Your task to perform on an android device: Open the phone app and click the voicemail tab. Image 0: 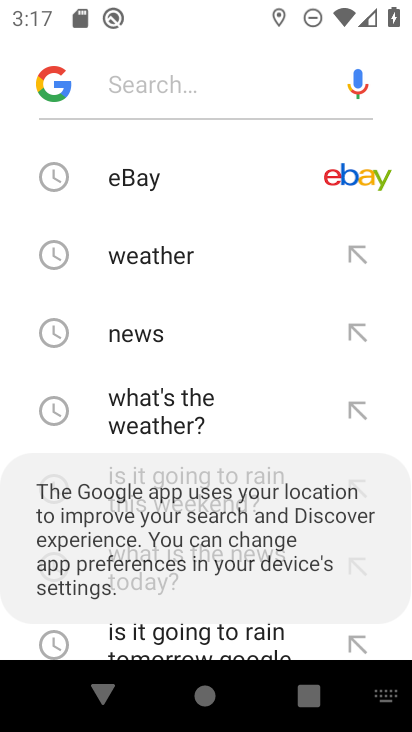
Step 0: press home button
Your task to perform on an android device: Open the phone app and click the voicemail tab. Image 1: 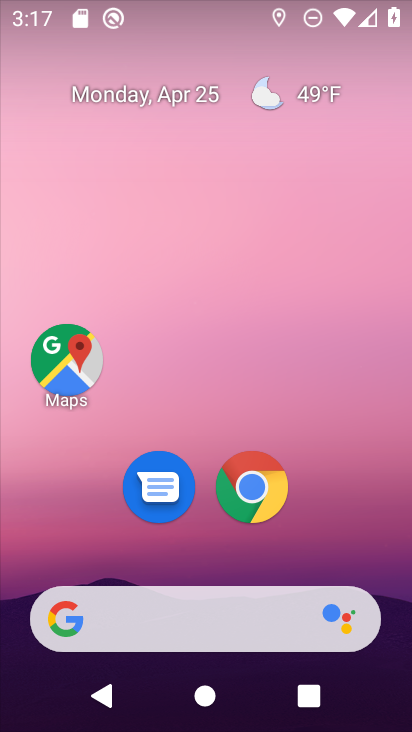
Step 1: drag from (363, 560) to (339, 0)
Your task to perform on an android device: Open the phone app and click the voicemail tab. Image 2: 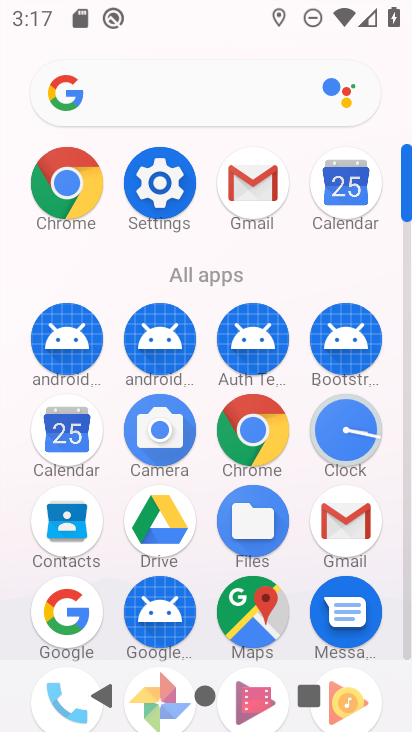
Step 2: drag from (397, 610) to (396, 526)
Your task to perform on an android device: Open the phone app and click the voicemail tab. Image 3: 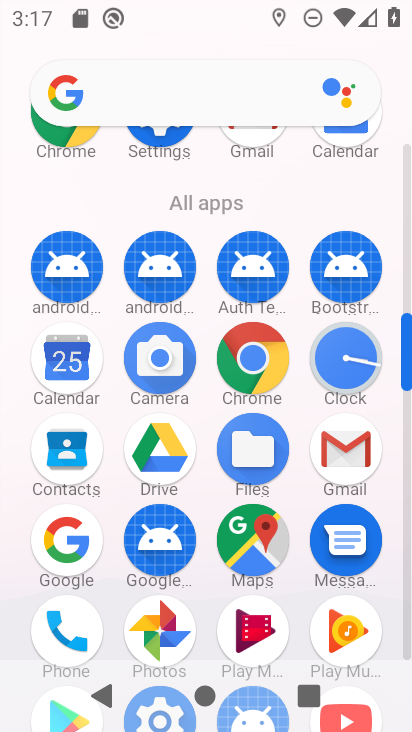
Step 3: click (56, 629)
Your task to perform on an android device: Open the phone app and click the voicemail tab. Image 4: 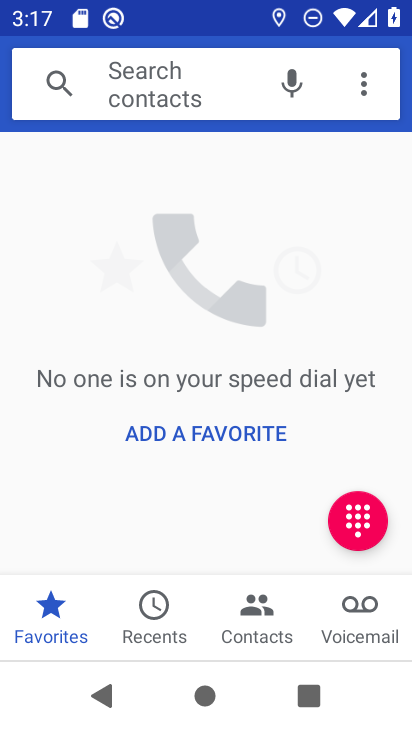
Step 4: click (360, 628)
Your task to perform on an android device: Open the phone app and click the voicemail tab. Image 5: 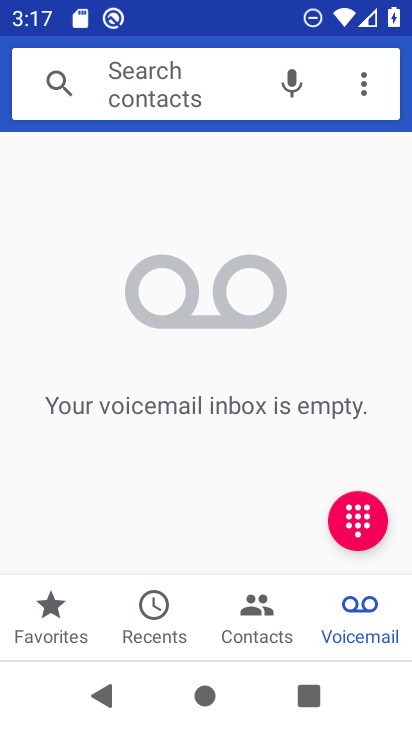
Step 5: task complete